Your task to perform on an android device: Open calendar and show me the first week of next month Image 0: 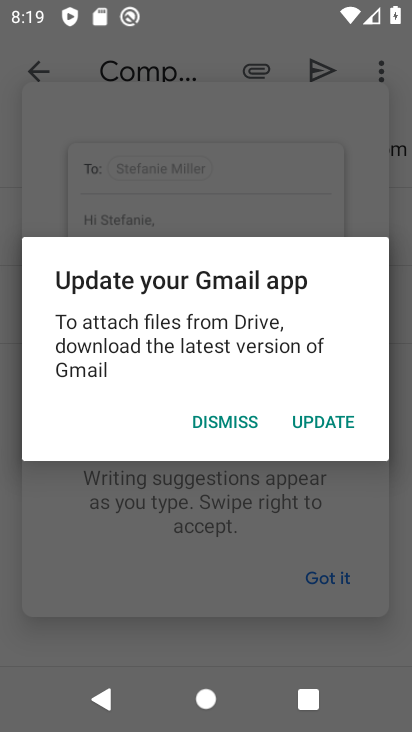
Step 0: press home button
Your task to perform on an android device: Open calendar and show me the first week of next month Image 1: 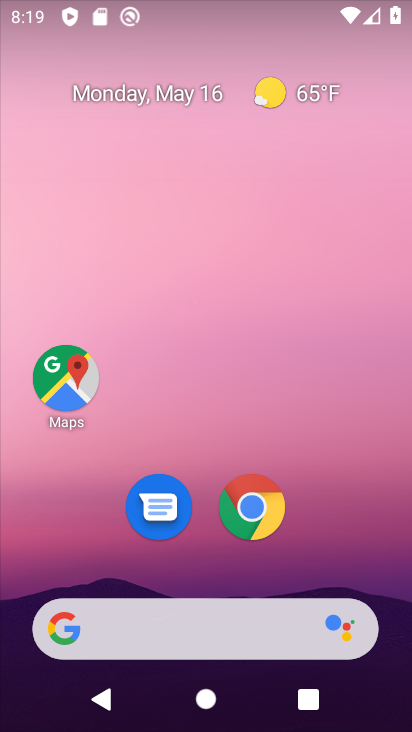
Step 1: drag from (178, 603) to (33, 40)
Your task to perform on an android device: Open calendar and show me the first week of next month Image 2: 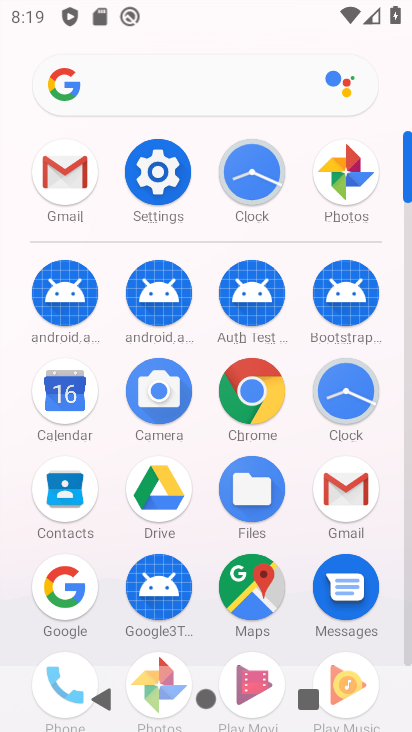
Step 2: click (66, 395)
Your task to perform on an android device: Open calendar and show me the first week of next month Image 3: 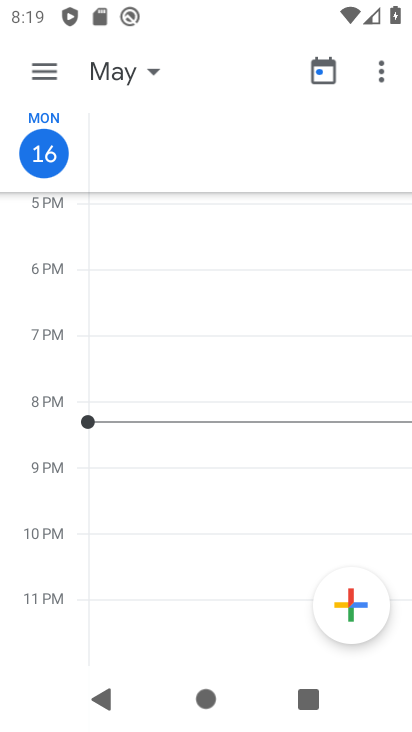
Step 3: click (44, 38)
Your task to perform on an android device: Open calendar and show me the first week of next month Image 4: 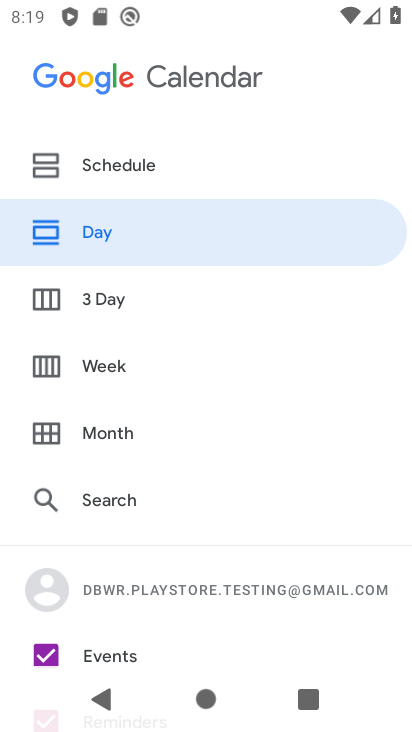
Step 4: click (86, 379)
Your task to perform on an android device: Open calendar and show me the first week of next month Image 5: 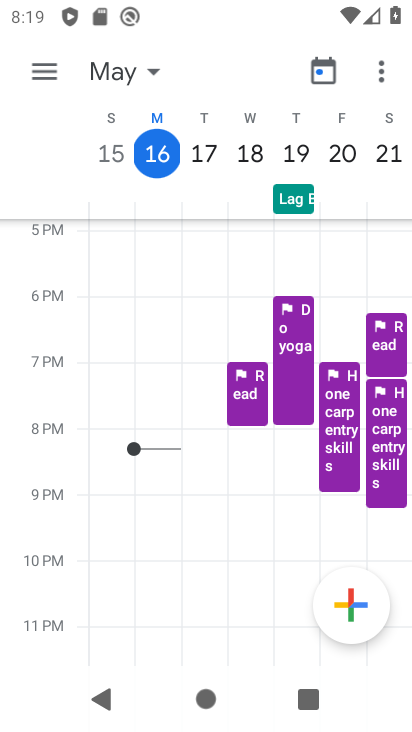
Step 5: task complete